Your task to perform on an android device: Open maps Image 0: 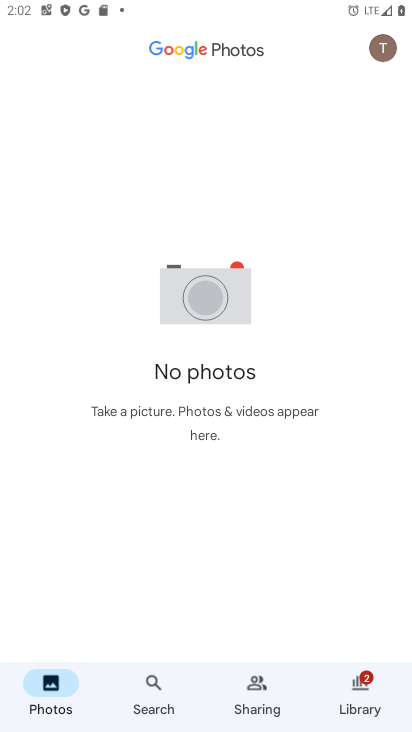
Step 0: press home button
Your task to perform on an android device: Open maps Image 1: 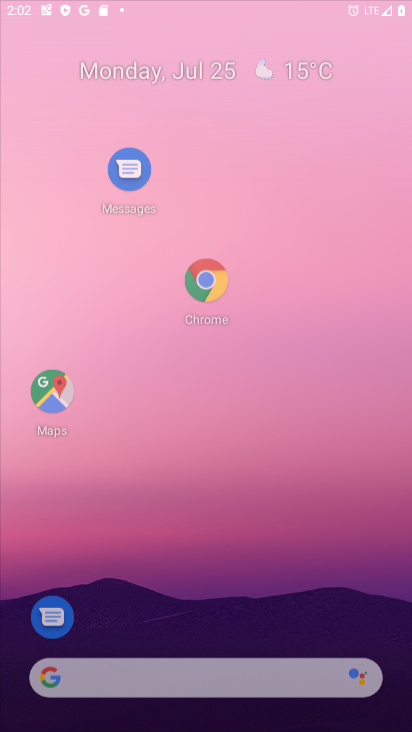
Step 1: drag from (174, 636) to (250, 10)
Your task to perform on an android device: Open maps Image 2: 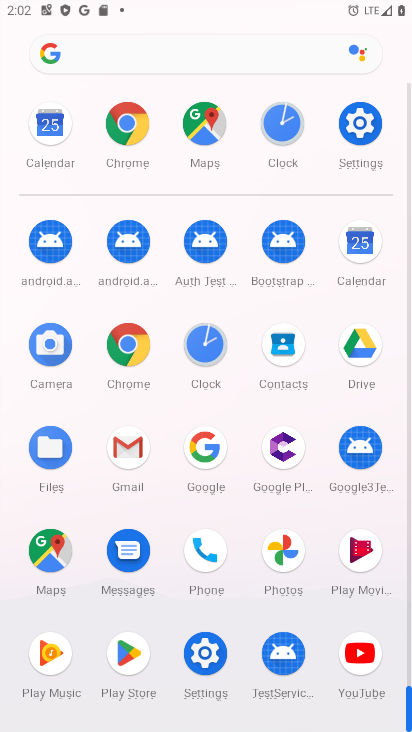
Step 2: click (58, 570)
Your task to perform on an android device: Open maps Image 3: 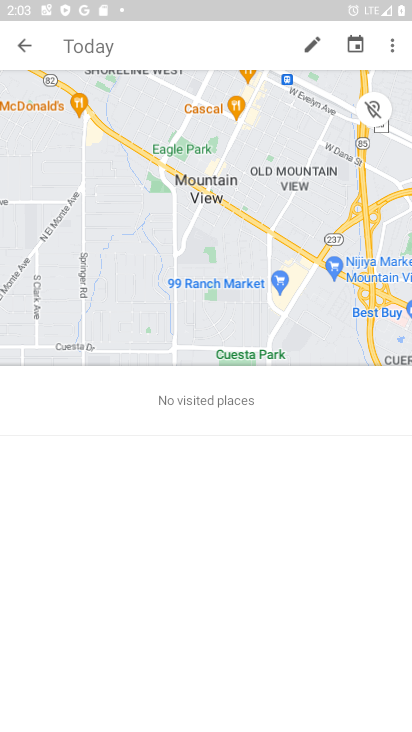
Step 3: task complete